Your task to perform on an android device: turn on data saver in the chrome app Image 0: 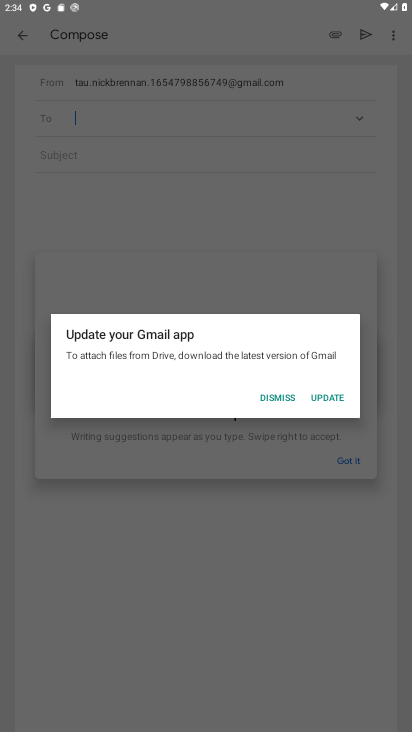
Step 0: press home button
Your task to perform on an android device: turn on data saver in the chrome app Image 1: 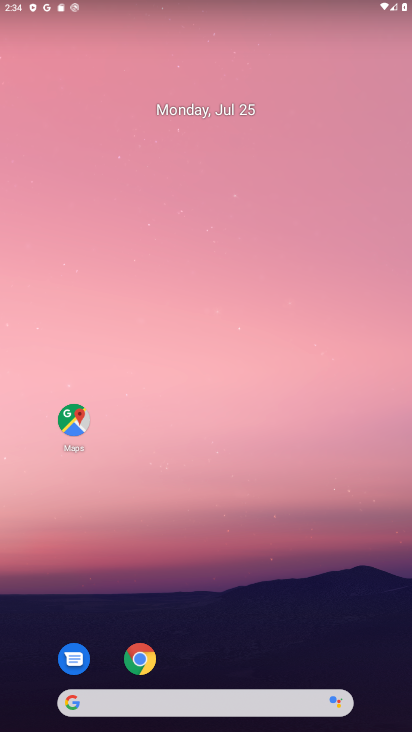
Step 1: click (134, 668)
Your task to perform on an android device: turn on data saver in the chrome app Image 2: 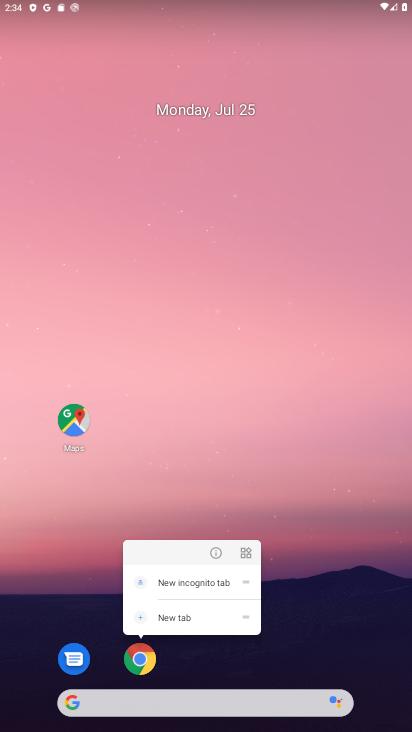
Step 2: click (157, 658)
Your task to perform on an android device: turn on data saver in the chrome app Image 3: 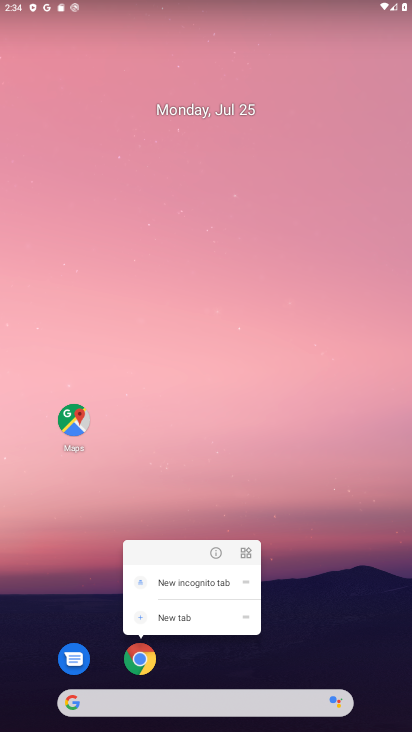
Step 3: click (118, 667)
Your task to perform on an android device: turn on data saver in the chrome app Image 4: 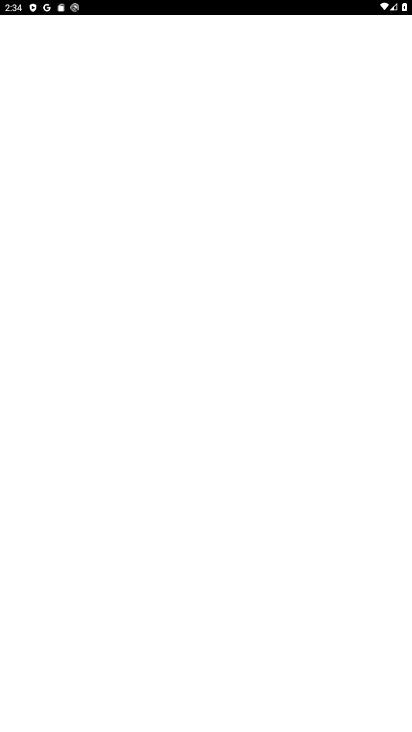
Step 4: click (129, 656)
Your task to perform on an android device: turn on data saver in the chrome app Image 5: 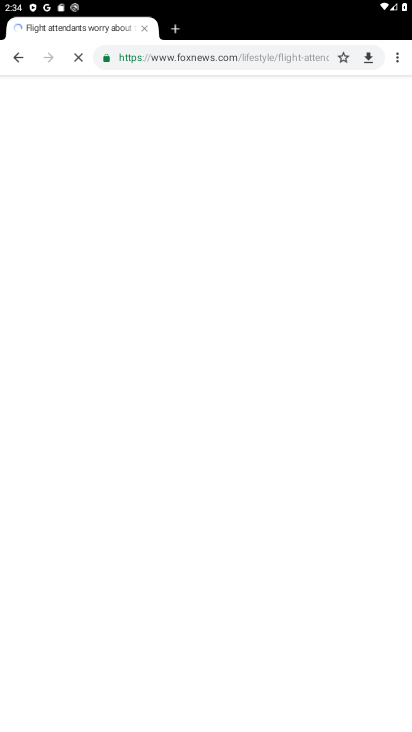
Step 5: drag from (394, 61) to (271, 425)
Your task to perform on an android device: turn on data saver in the chrome app Image 6: 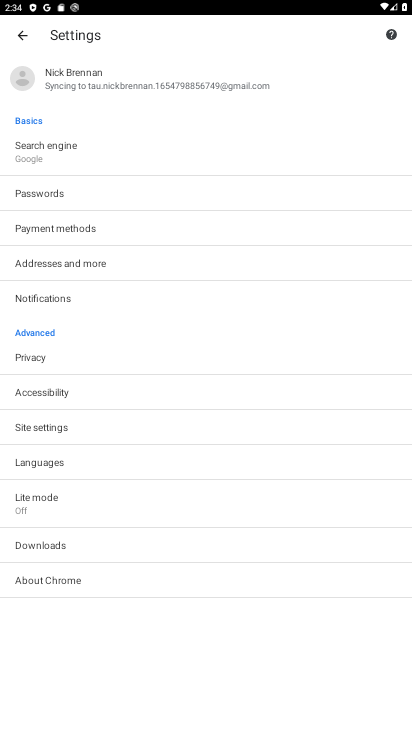
Step 6: click (63, 499)
Your task to perform on an android device: turn on data saver in the chrome app Image 7: 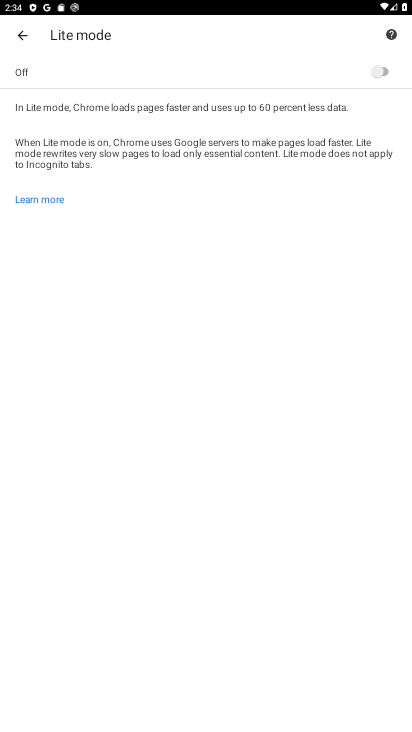
Step 7: click (380, 65)
Your task to perform on an android device: turn on data saver in the chrome app Image 8: 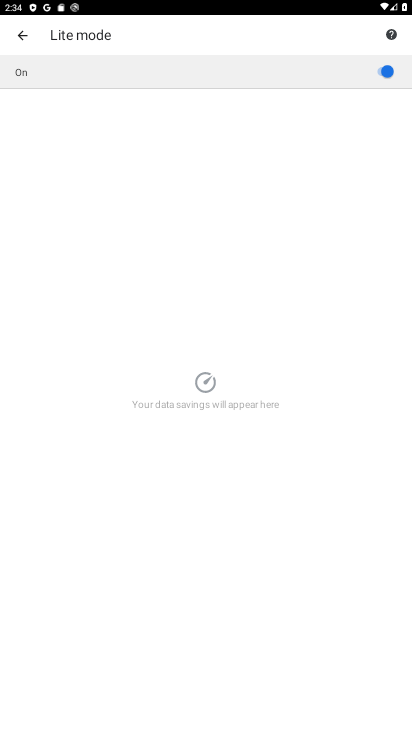
Step 8: task complete